Your task to perform on an android device: turn on javascript in the chrome app Image 0: 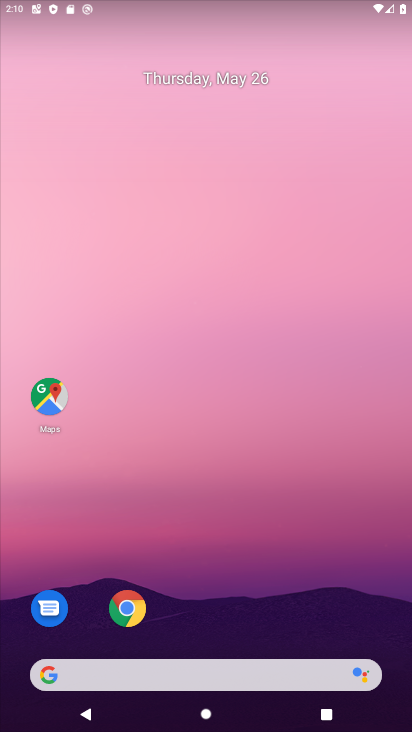
Step 0: drag from (314, 585) to (375, 118)
Your task to perform on an android device: turn on javascript in the chrome app Image 1: 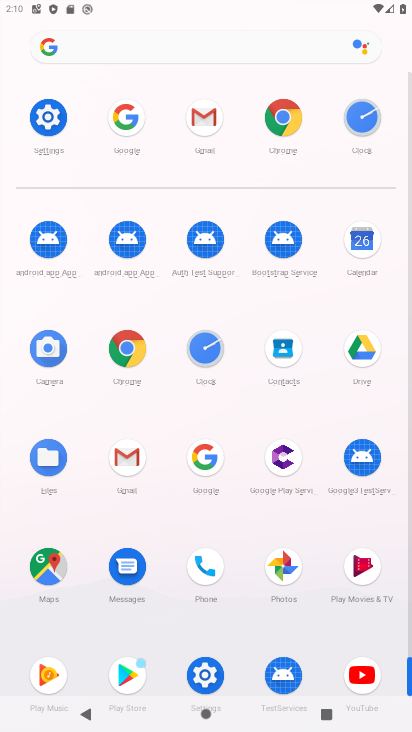
Step 1: click (271, 143)
Your task to perform on an android device: turn on javascript in the chrome app Image 2: 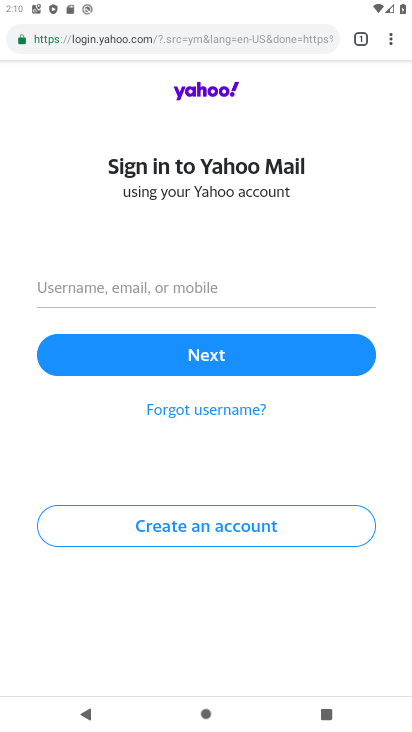
Step 2: drag from (391, 46) to (251, 429)
Your task to perform on an android device: turn on javascript in the chrome app Image 3: 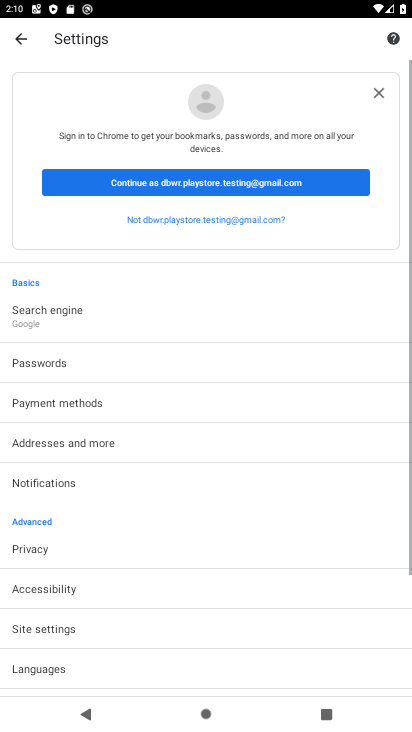
Step 3: drag from (105, 545) to (139, 293)
Your task to perform on an android device: turn on javascript in the chrome app Image 4: 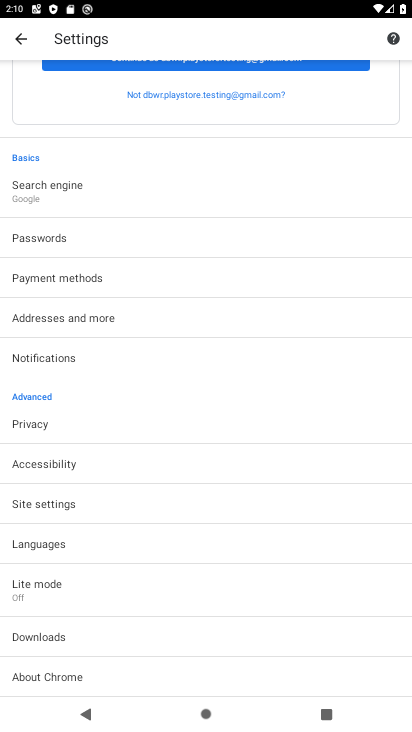
Step 4: click (46, 504)
Your task to perform on an android device: turn on javascript in the chrome app Image 5: 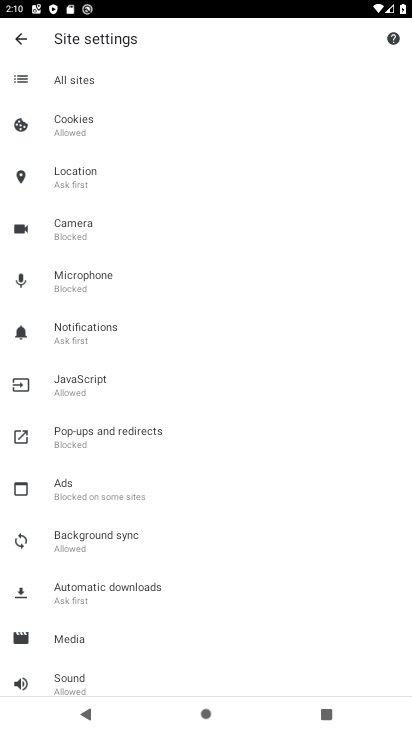
Step 5: click (72, 377)
Your task to perform on an android device: turn on javascript in the chrome app Image 6: 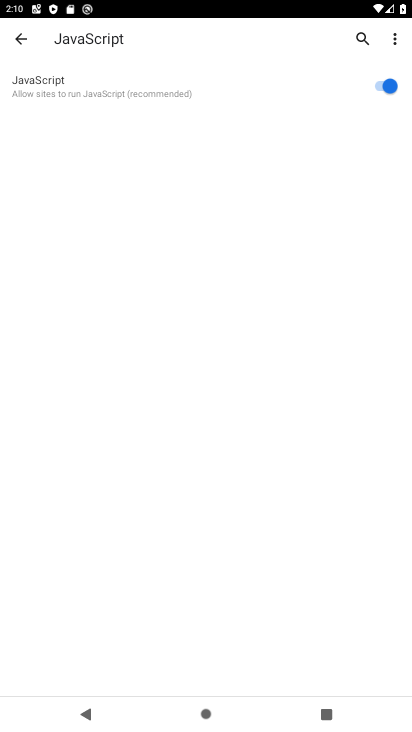
Step 6: task complete